Your task to perform on an android device: Go to Yahoo.com Image 0: 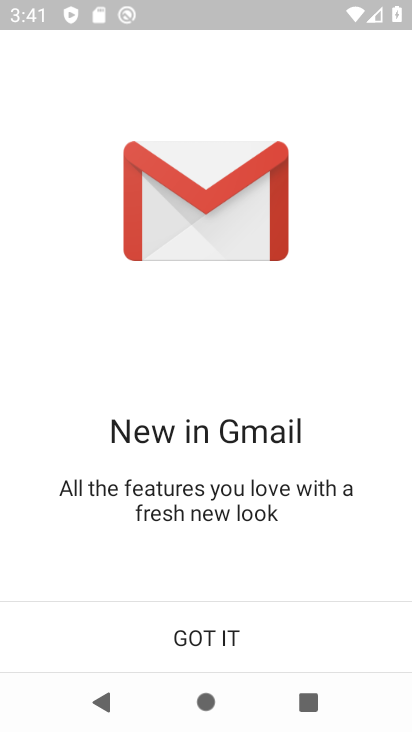
Step 0: click (234, 637)
Your task to perform on an android device: Go to Yahoo.com Image 1: 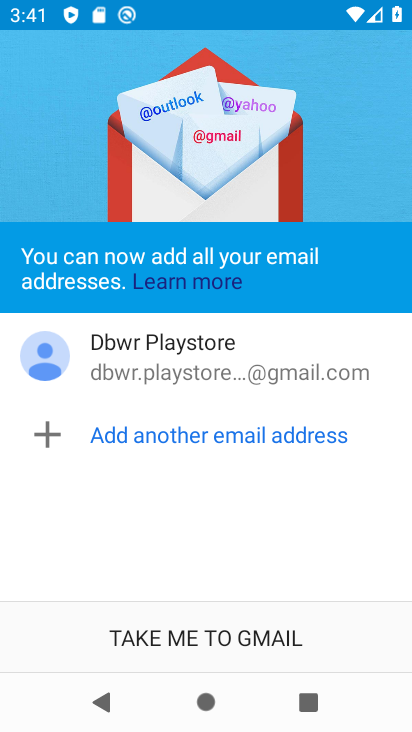
Step 1: press home button
Your task to perform on an android device: Go to Yahoo.com Image 2: 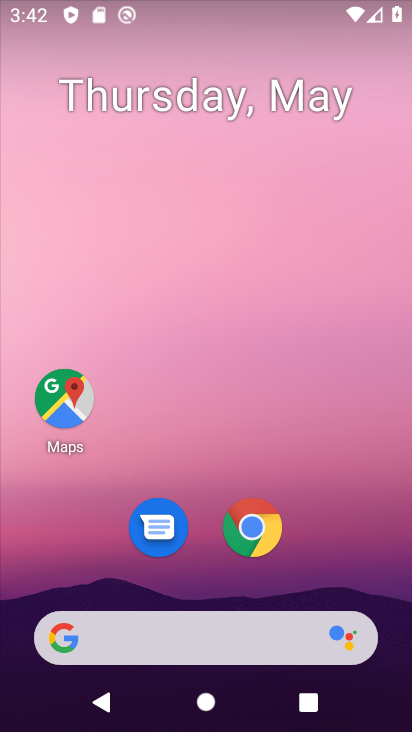
Step 2: click (241, 528)
Your task to perform on an android device: Go to Yahoo.com Image 3: 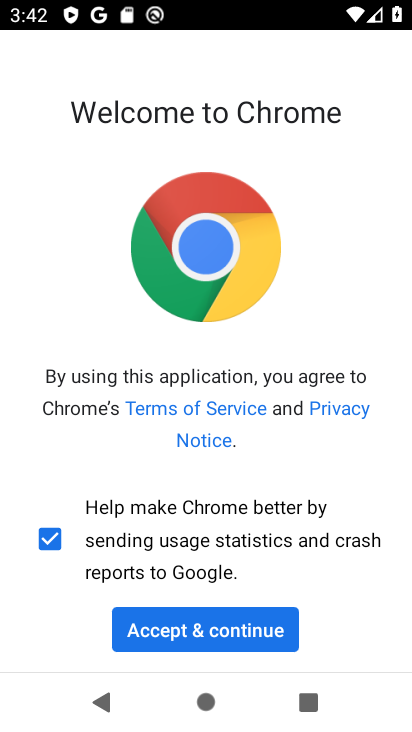
Step 3: click (263, 621)
Your task to perform on an android device: Go to Yahoo.com Image 4: 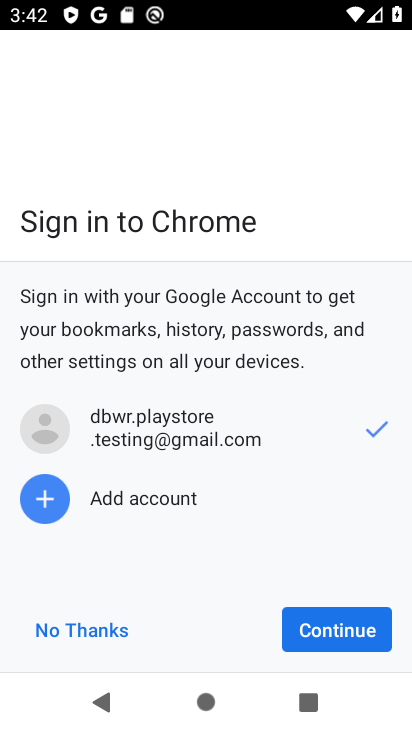
Step 4: click (365, 639)
Your task to perform on an android device: Go to Yahoo.com Image 5: 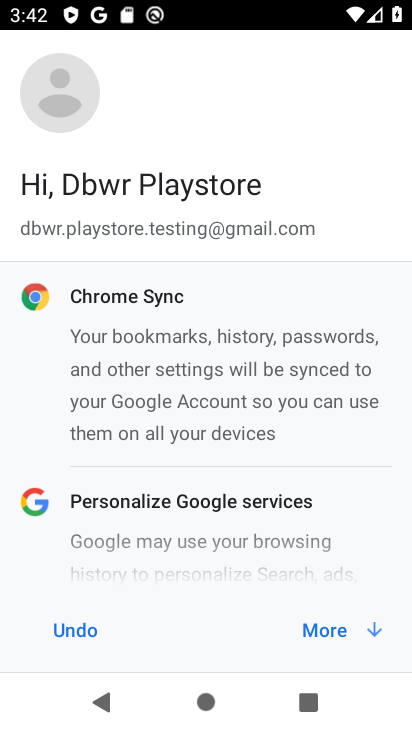
Step 5: click (314, 623)
Your task to perform on an android device: Go to Yahoo.com Image 6: 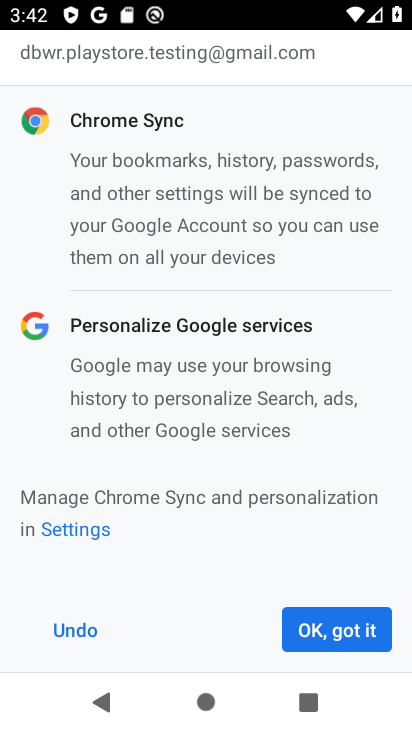
Step 6: click (321, 631)
Your task to perform on an android device: Go to Yahoo.com Image 7: 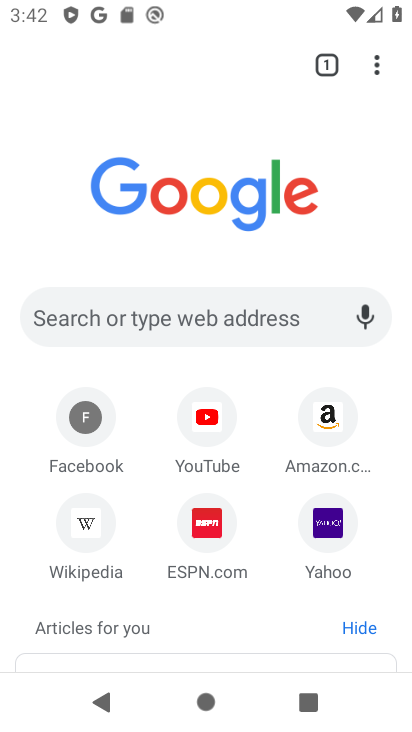
Step 7: click (330, 522)
Your task to perform on an android device: Go to Yahoo.com Image 8: 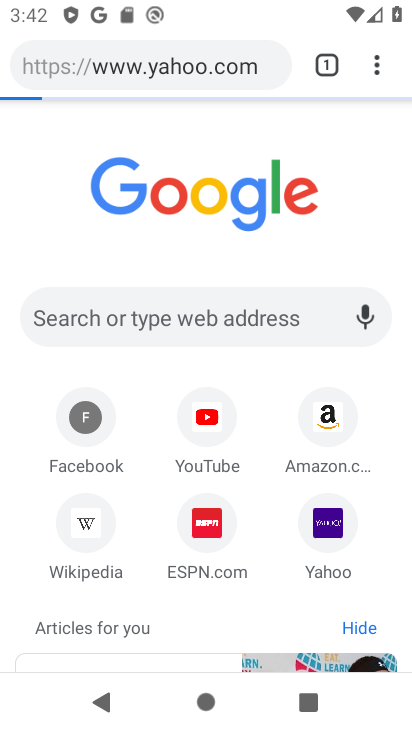
Step 8: task complete